Your task to perform on an android device: Open display settings Image 0: 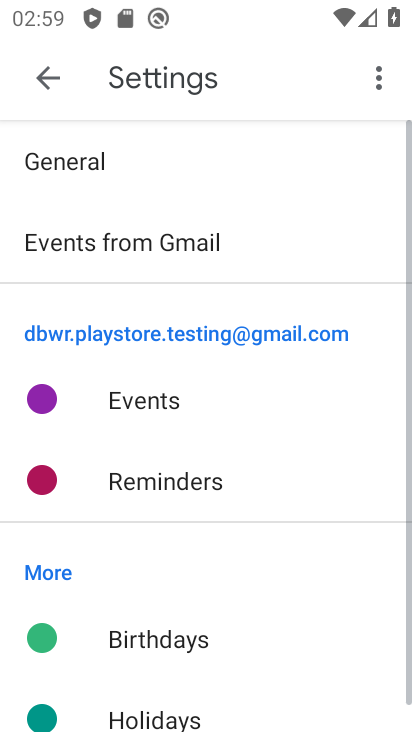
Step 0: drag from (291, 567) to (262, 464)
Your task to perform on an android device: Open display settings Image 1: 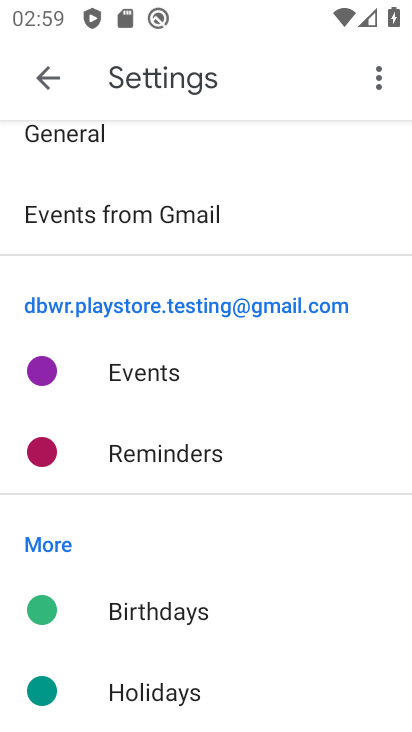
Step 1: press home button
Your task to perform on an android device: Open display settings Image 2: 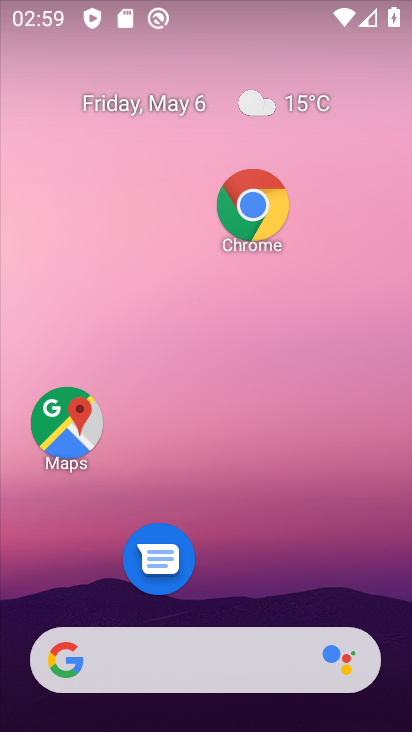
Step 2: drag from (277, 613) to (255, 88)
Your task to perform on an android device: Open display settings Image 3: 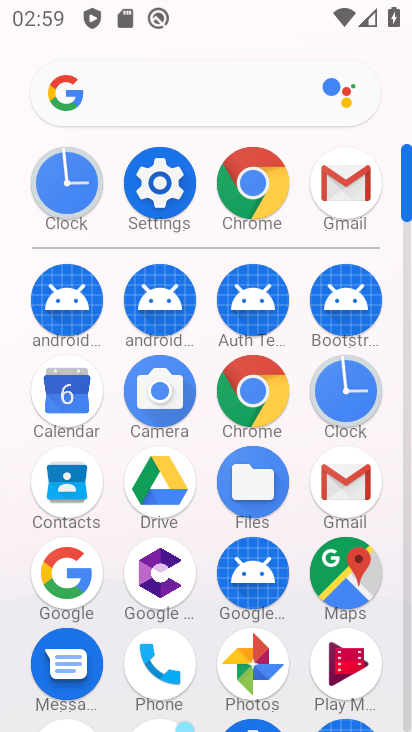
Step 3: click (175, 213)
Your task to perform on an android device: Open display settings Image 4: 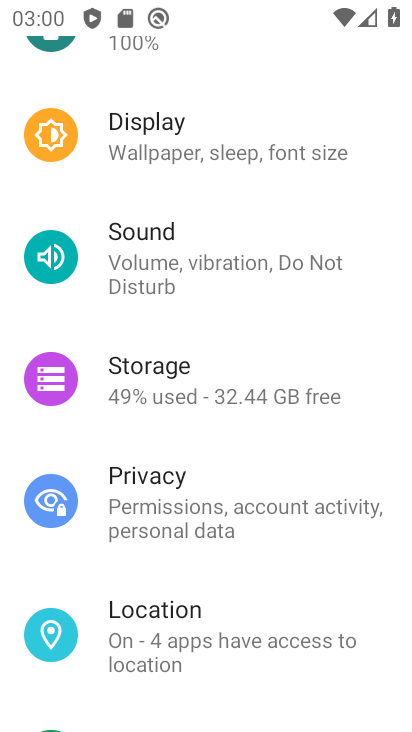
Step 4: drag from (177, 459) to (174, 112)
Your task to perform on an android device: Open display settings Image 5: 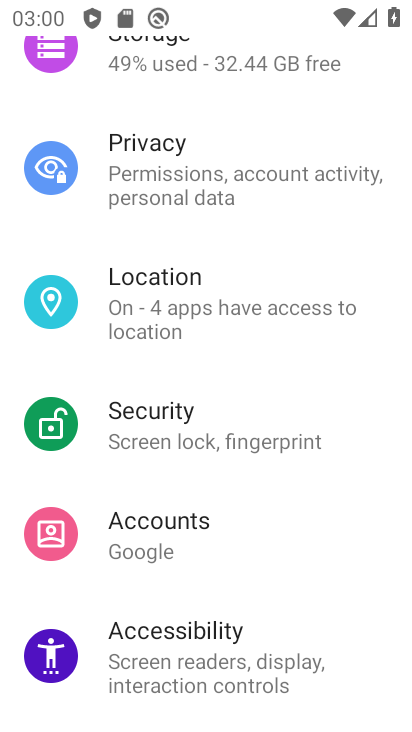
Step 5: drag from (200, 214) to (214, 682)
Your task to perform on an android device: Open display settings Image 6: 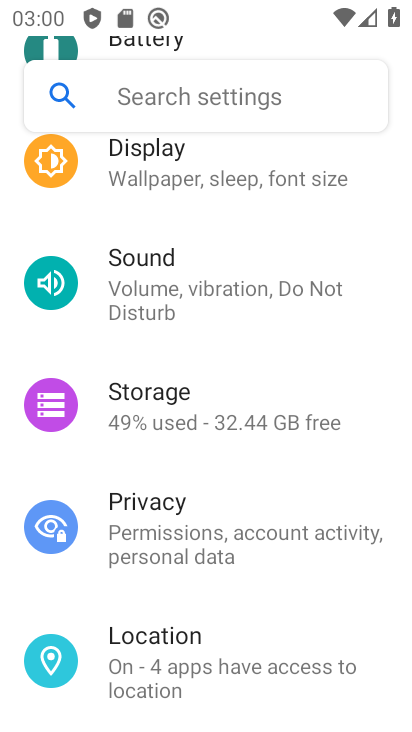
Step 6: drag from (191, 236) to (183, 510)
Your task to perform on an android device: Open display settings Image 7: 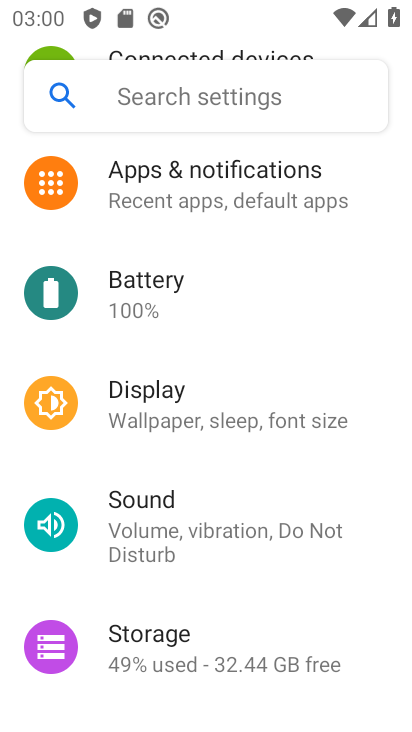
Step 7: drag from (204, 260) to (210, 396)
Your task to perform on an android device: Open display settings Image 8: 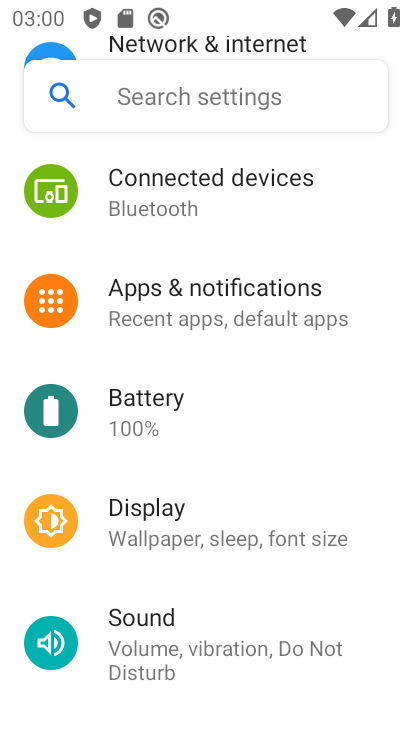
Step 8: drag from (203, 285) to (206, 371)
Your task to perform on an android device: Open display settings Image 9: 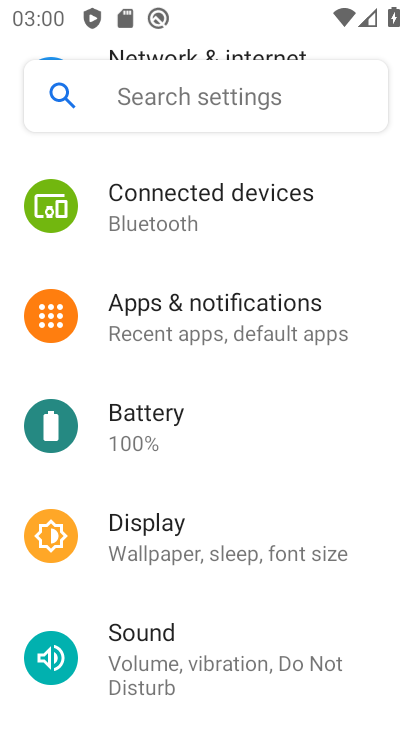
Step 9: drag from (232, 253) to (221, 614)
Your task to perform on an android device: Open display settings Image 10: 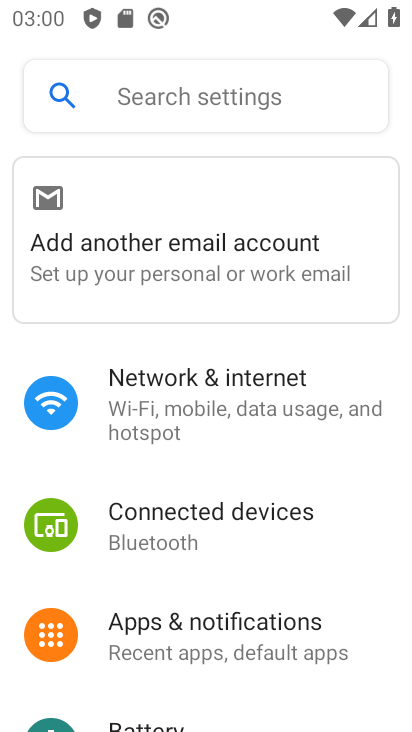
Step 10: drag from (215, 667) to (121, 286)
Your task to perform on an android device: Open display settings Image 11: 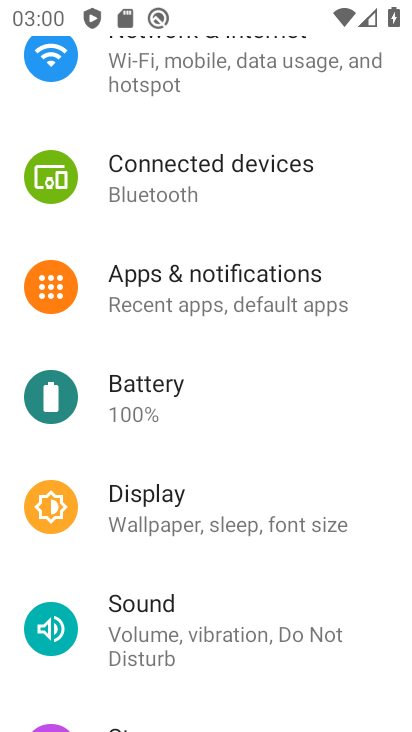
Step 11: click (129, 483)
Your task to perform on an android device: Open display settings Image 12: 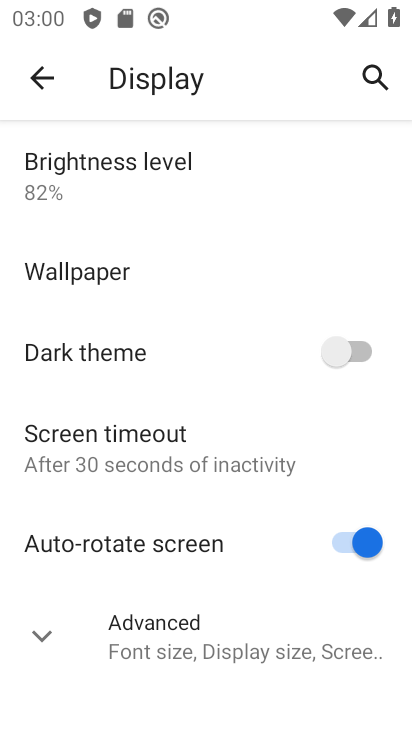
Step 12: task complete